Your task to perform on an android device: change timer sound Image 0: 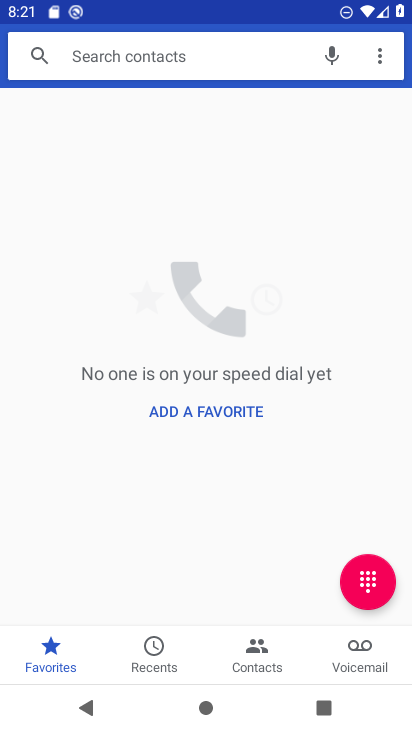
Step 0: press home button
Your task to perform on an android device: change timer sound Image 1: 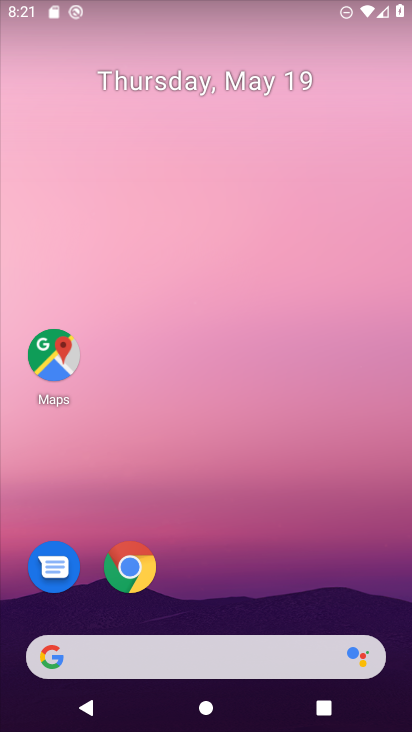
Step 1: drag from (194, 614) to (201, 113)
Your task to perform on an android device: change timer sound Image 2: 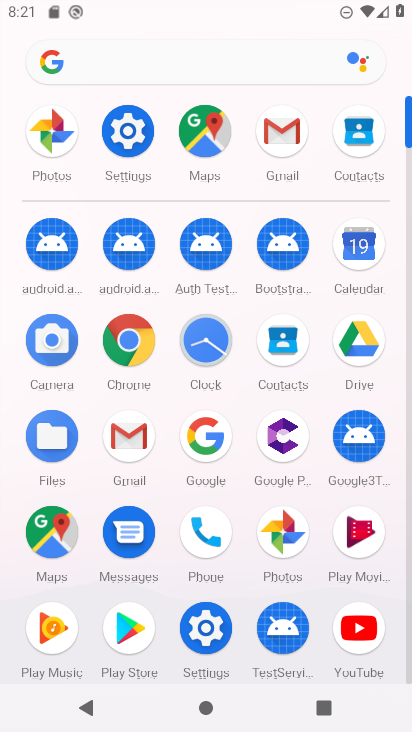
Step 2: click (126, 119)
Your task to perform on an android device: change timer sound Image 3: 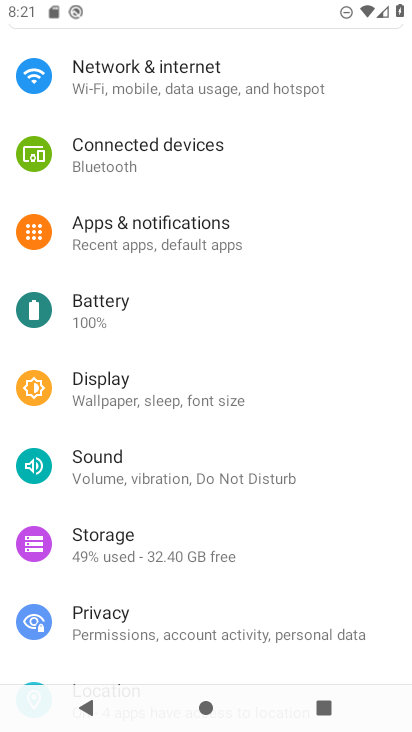
Step 3: click (194, 471)
Your task to perform on an android device: change timer sound Image 4: 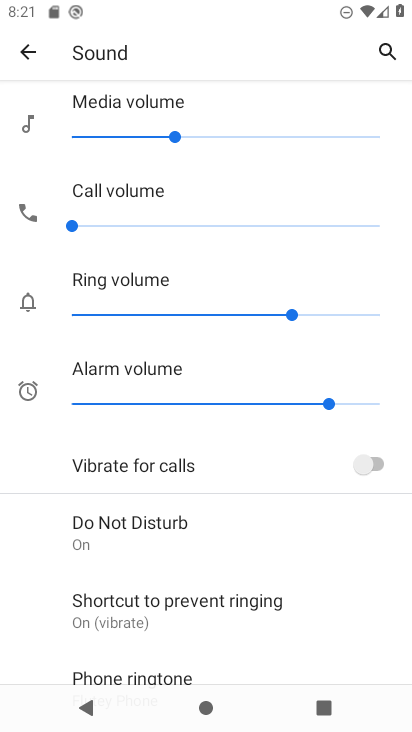
Step 4: task complete